Your task to perform on an android device: Add acer nitro to the cart on walmart.com, then select checkout. Image 0: 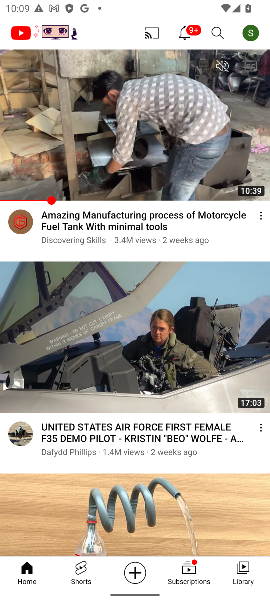
Step 0: task complete